Your task to perform on an android device: see tabs open on other devices in the chrome app Image 0: 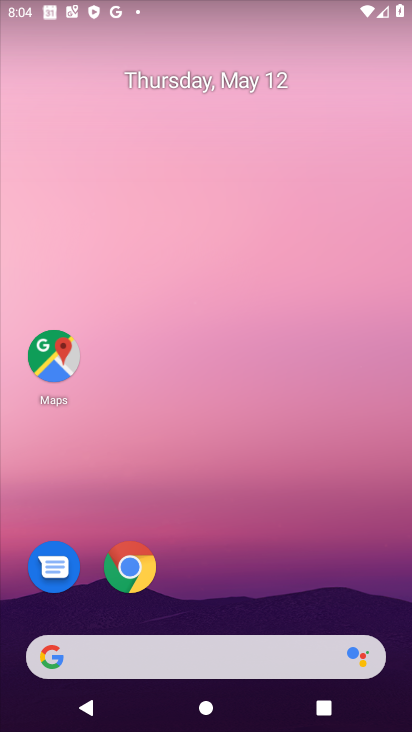
Step 0: drag from (238, 617) to (243, 2)
Your task to perform on an android device: see tabs open on other devices in the chrome app Image 1: 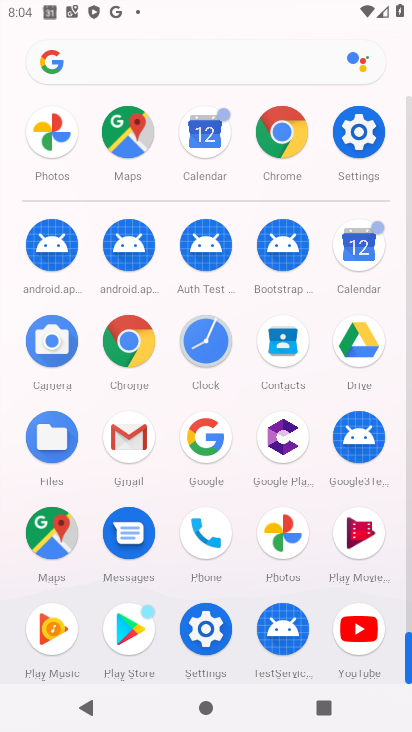
Step 1: click (281, 160)
Your task to perform on an android device: see tabs open on other devices in the chrome app Image 2: 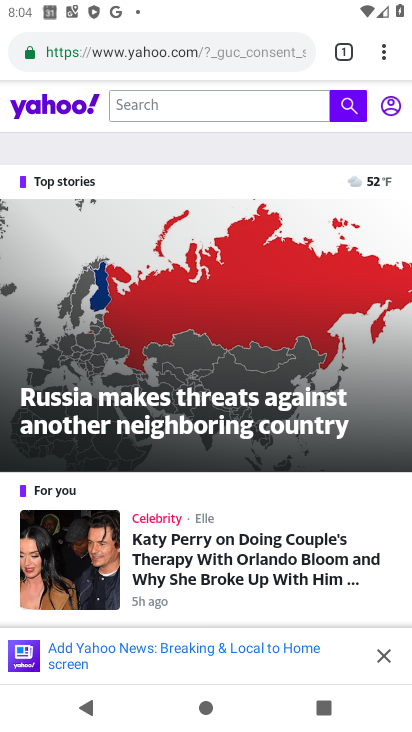
Step 2: task complete